Your task to perform on an android device: turn off location Image 0: 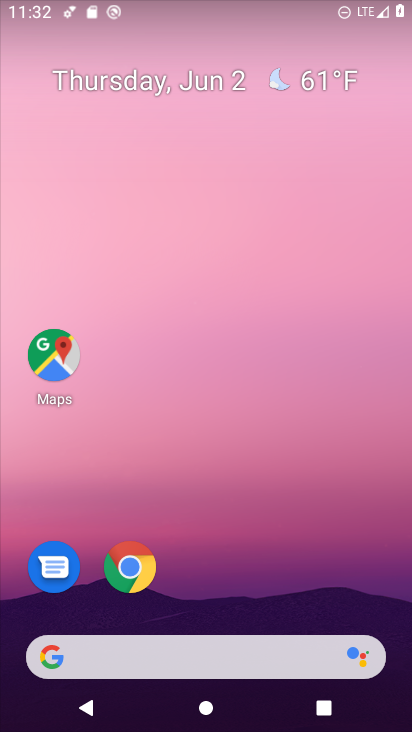
Step 0: drag from (286, 515) to (214, 74)
Your task to perform on an android device: turn off location Image 1: 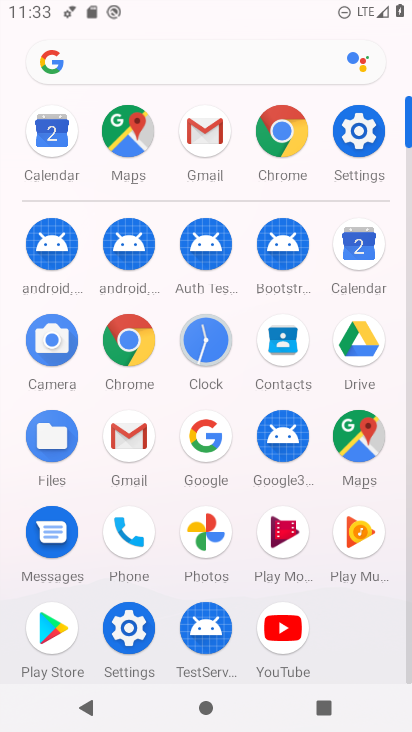
Step 1: click (356, 130)
Your task to perform on an android device: turn off location Image 2: 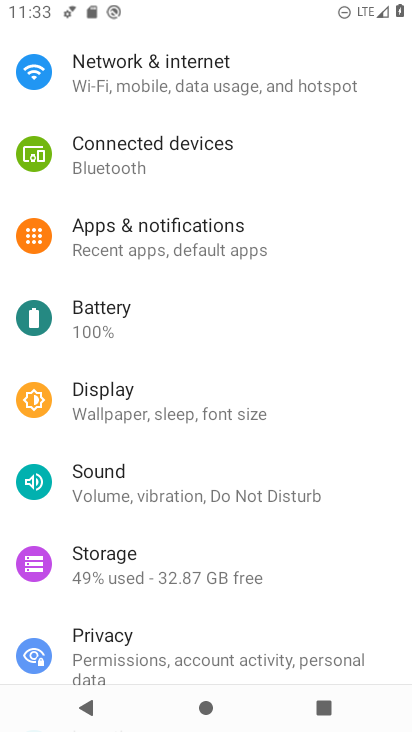
Step 2: drag from (183, 149) to (186, 421)
Your task to perform on an android device: turn off location Image 3: 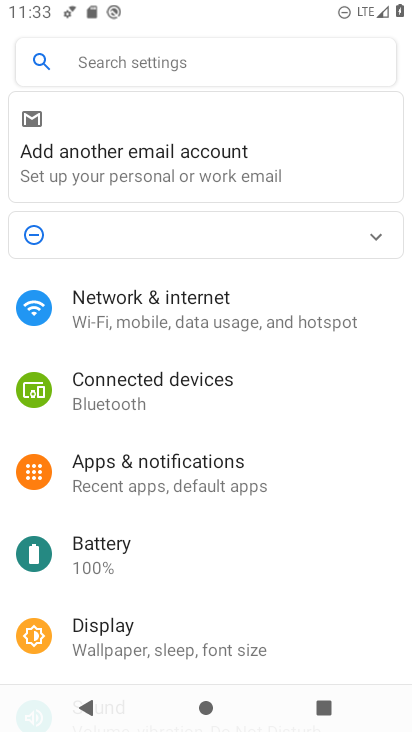
Step 3: drag from (231, 499) to (249, 29)
Your task to perform on an android device: turn off location Image 4: 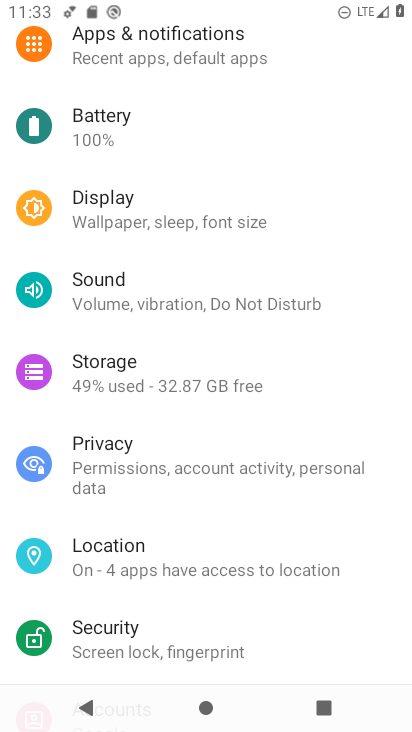
Step 4: click (141, 557)
Your task to perform on an android device: turn off location Image 5: 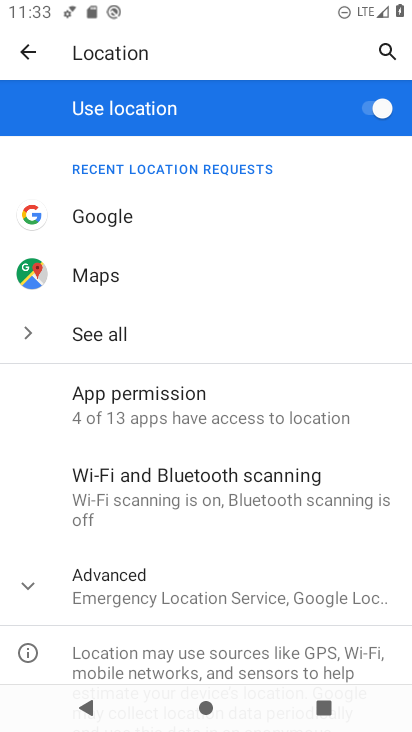
Step 5: click (355, 135)
Your task to perform on an android device: turn off location Image 6: 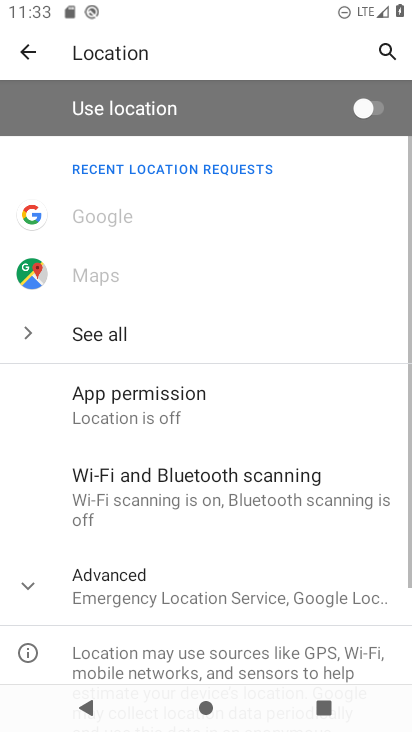
Step 6: task complete